Your task to perform on an android device: Open Google Chrome and open the bookmarks view Image 0: 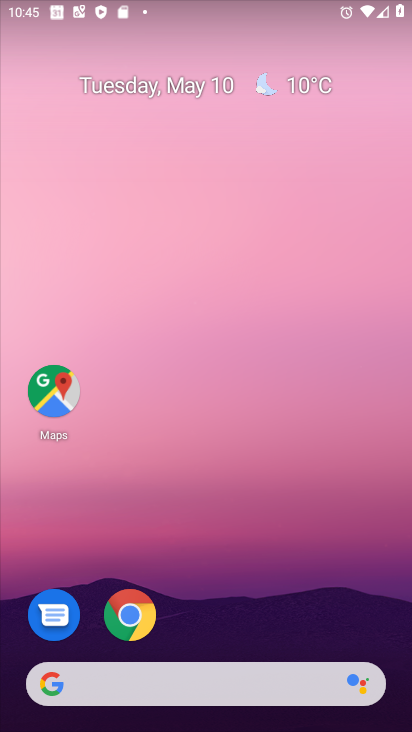
Step 0: press home button
Your task to perform on an android device: Open Google Chrome and open the bookmarks view Image 1: 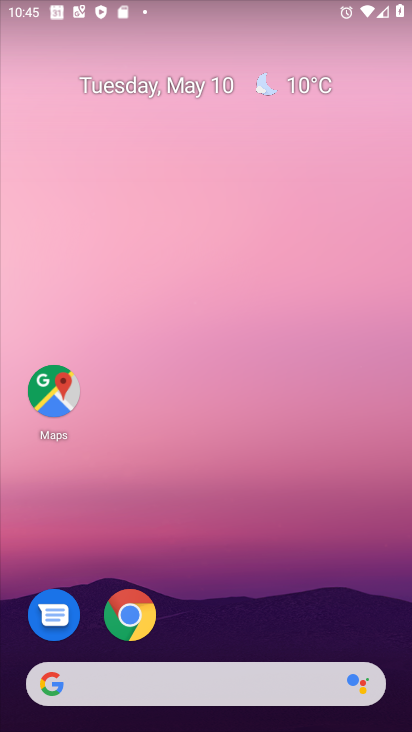
Step 1: click (128, 615)
Your task to perform on an android device: Open Google Chrome and open the bookmarks view Image 2: 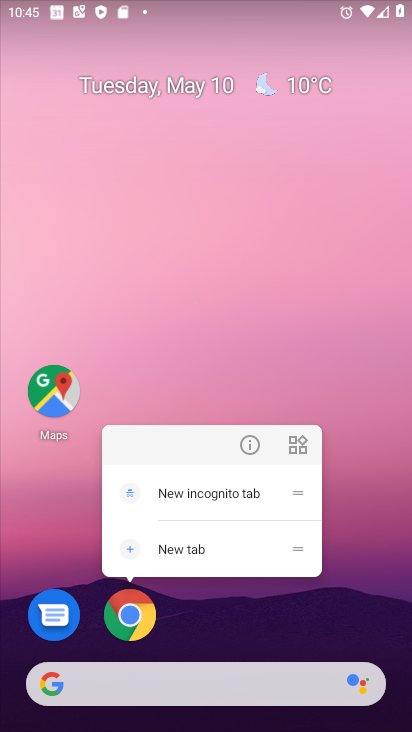
Step 2: click (126, 607)
Your task to perform on an android device: Open Google Chrome and open the bookmarks view Image 3: 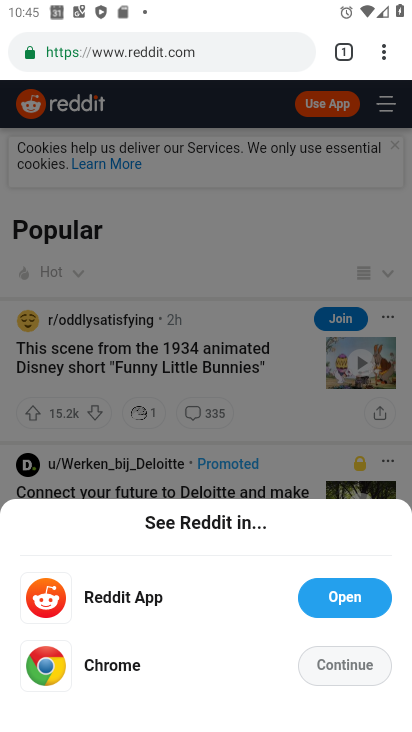
Step 3: click (340, 663)
Your task to perform on an android device: Open Google Chrome and open the bookmarks view Image 4: 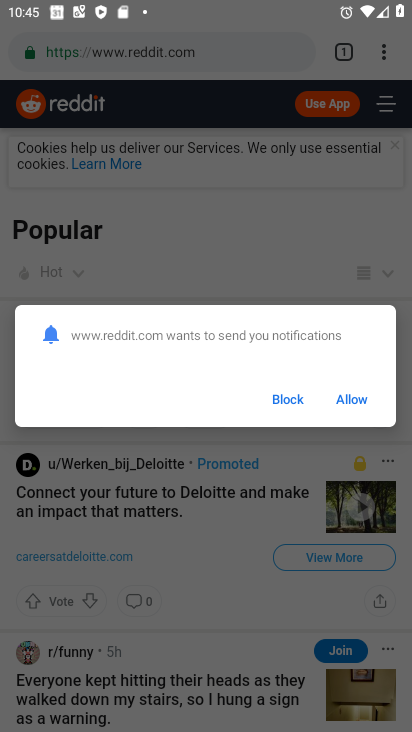
Step 4: click (348, 391)
Your task to perform on an android device: Open Google Chrome and open the bookmarks view Image 5: 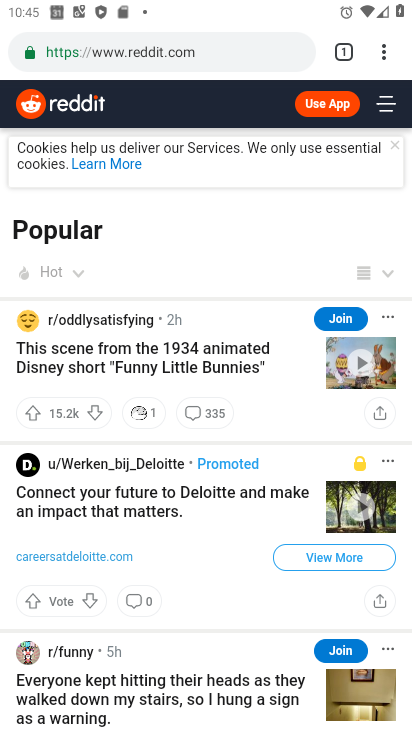
Step 5: click (384, 55)
Your task to perform on an android device: Open Google Chrome and open the bookmarks view Image 6: 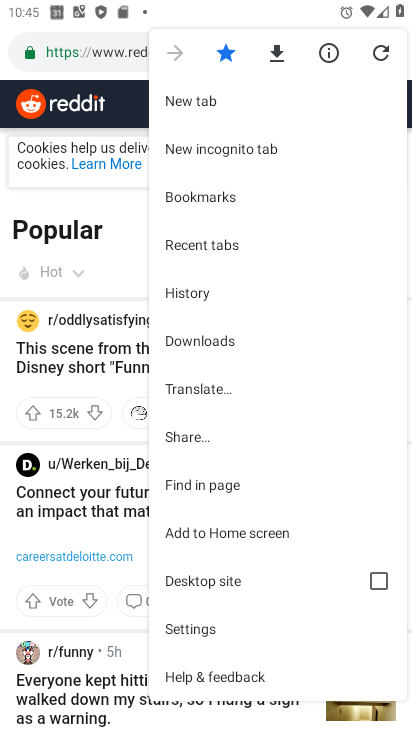
Step 6: click (246, 191)
Your task to perform on an android device: Open Google Chrome and open the bookmarks view Image 7: 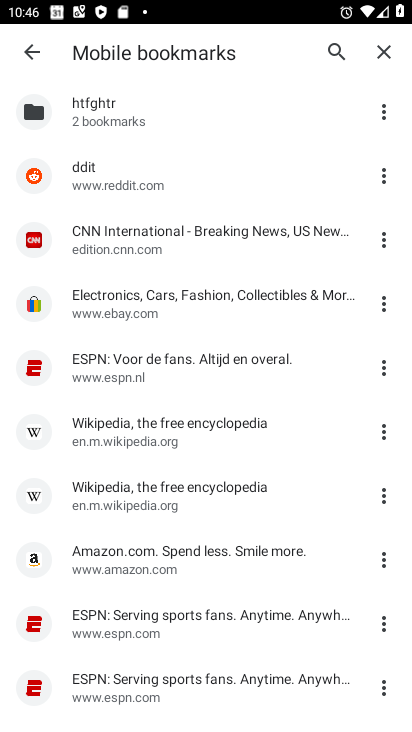
Step 7: click (168, 309)
Your task to perform on an android device: Open Google Chrome and open the bookmarks view Image 8: 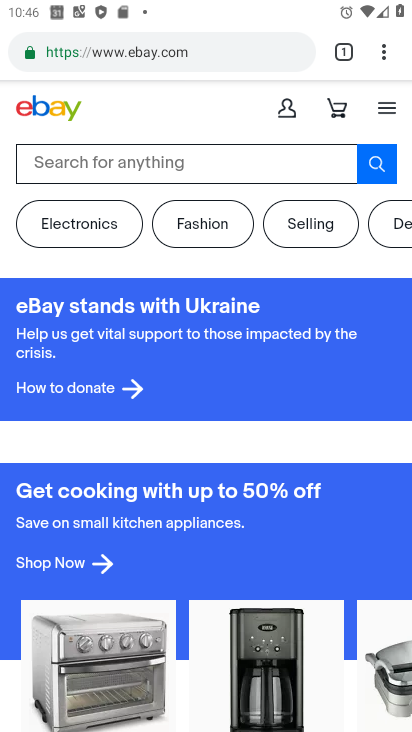
Step 8: task complete